Your task to perform on an android device: set the timer Image 0: 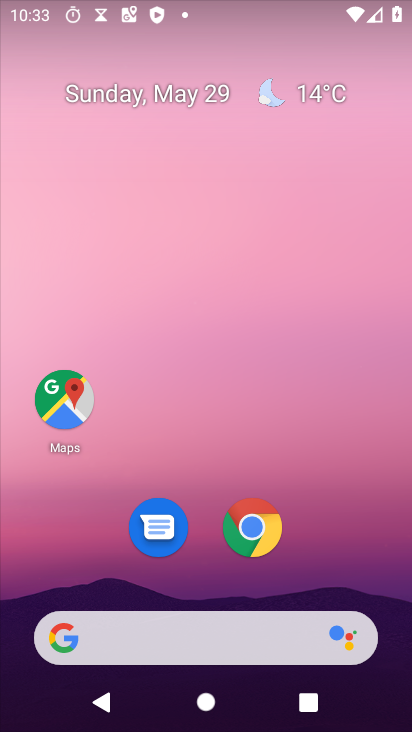
Step 0: press home button
Your task to perform on an android device: set the timer Image 1: 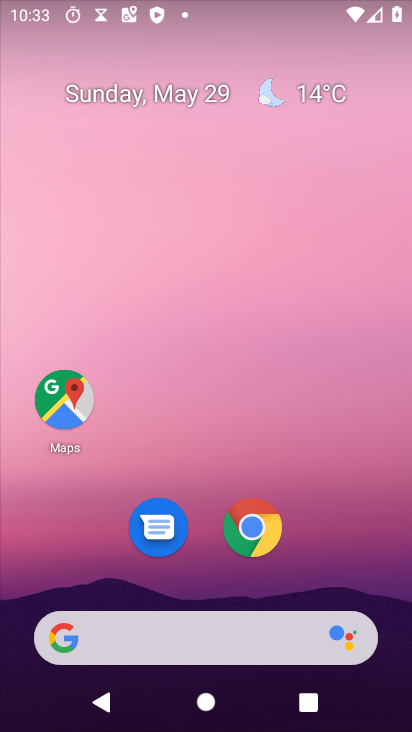
Step 1: drag from (204, 635) to (308, 110)
Your task to perform on an android device: set the timer Image 2: 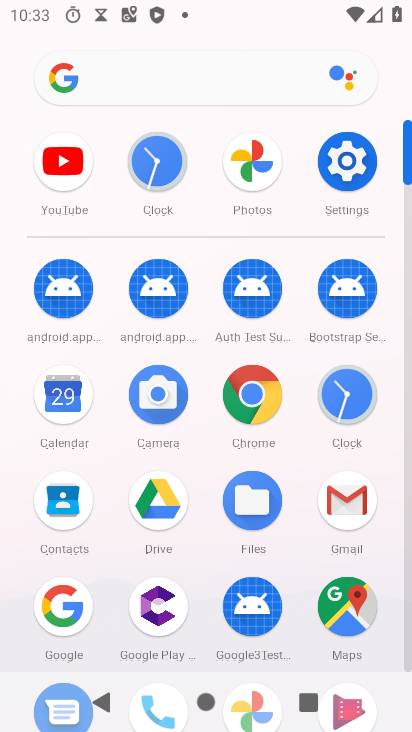
Step 2: click (154, 160)
Your task to perform on an android device: set the timer Image 3: 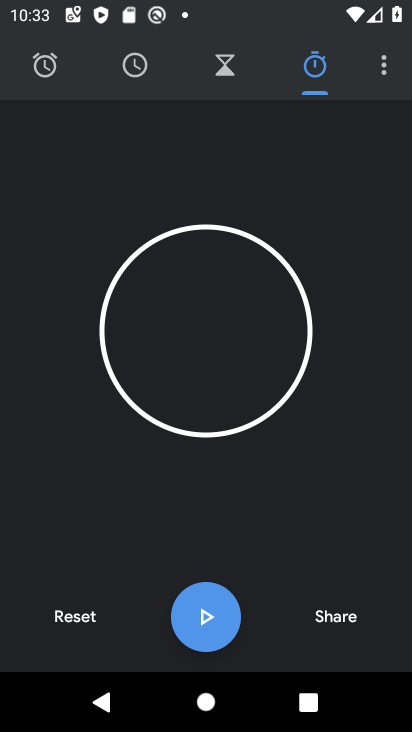
Step 3: click (221, 67)
Your task to perform on an android device: set the timer Image 4: 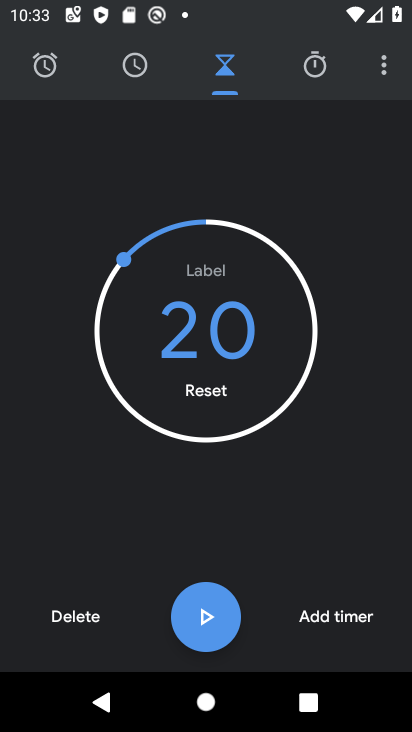
Step 4: click (81, 613)
Your task to perform on an android device: set the timer Image 5: 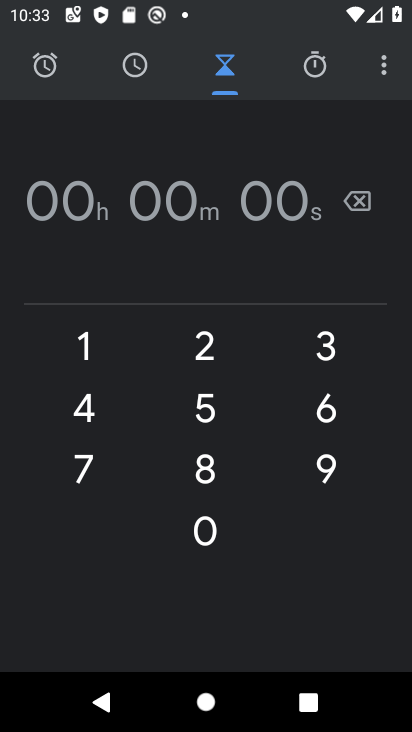
Step 5: click (205, 347)
Your task to perform on an android device: set the timer Image 6: 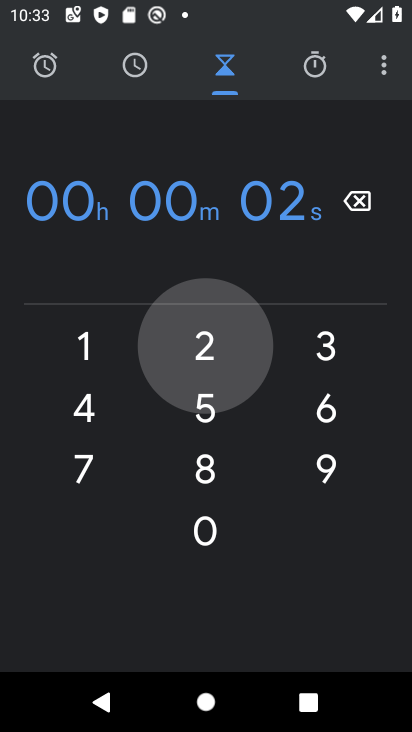
Step 6: click (205, 349)
Your task to perform on an android device: set the timer Image 7: 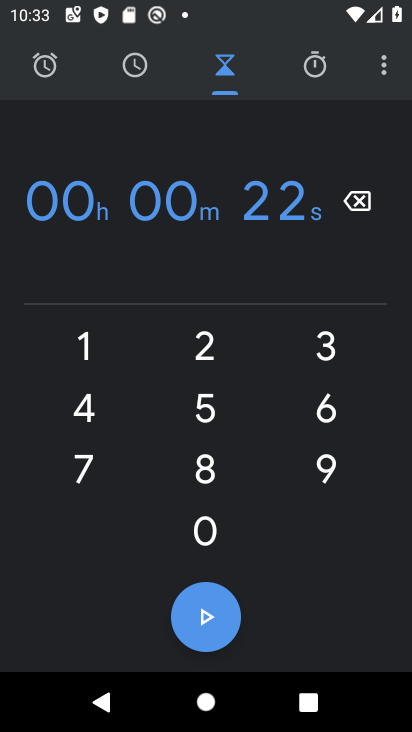
Step 7: click (209, 622)
Your task to perform on an android device: set the timer Image 8: 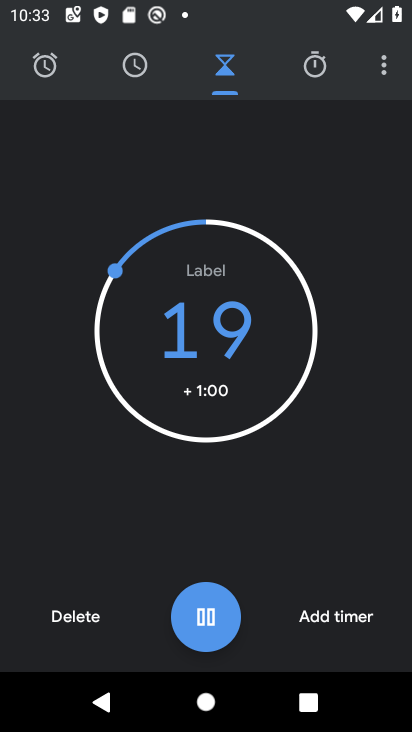
Step 8: click (199, 627)
Your task to perform on an android device: set the timer Image 9: 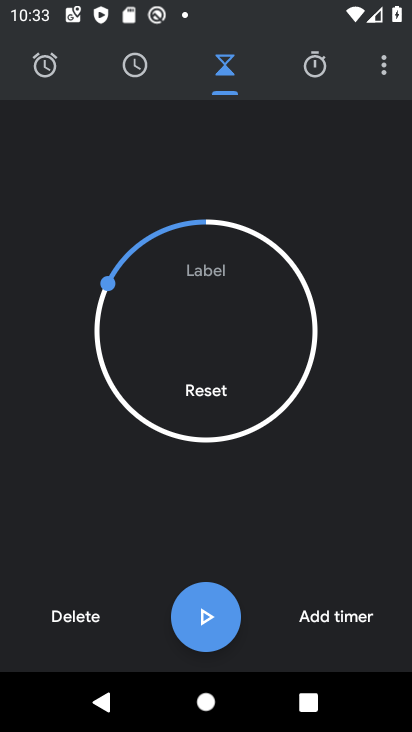
Step 9: task complete